Your task to perform on an android device: Open calendar and show me the first week of next month Image 0: 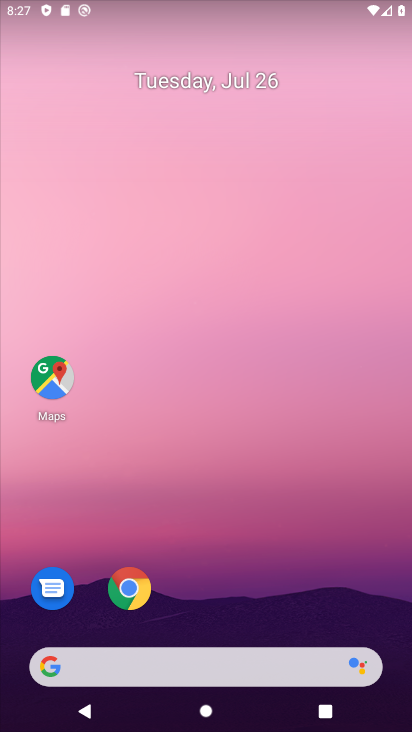
Step 0: drag from (285, 603) to (244, 147)
Your task to perform on an android device: Open calendar and show me the first week of next month Image 1: 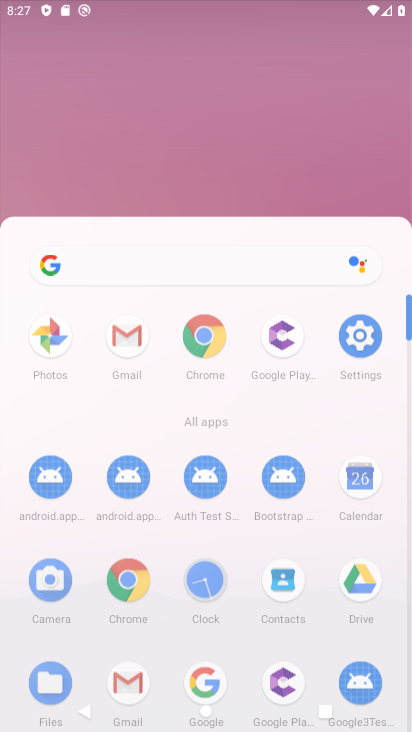
Step 1: drag from (192, 486) to (189, 128)
Your task to perform on an android device: Open calendar and show me the first week of next month Image 2: 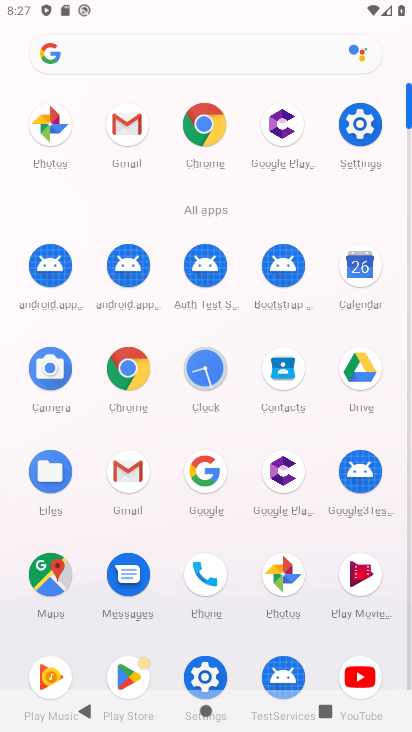
Step 2: click (361, 258)
Your task to perform on an android device: Open calendar and show me the first week of next month Image 3: 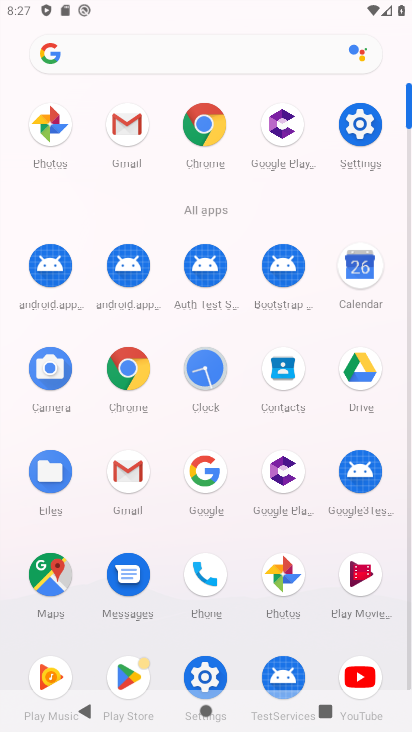
Step 3: click (360, 259)
Your task to perform on an android device: Open calendar and show me the first week of next month Image 4: 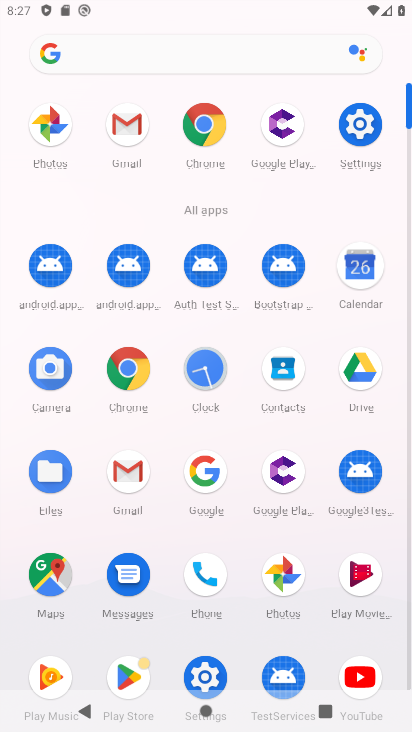
Step 4: click (359, 259)
Your task to perform on an android device: Open calendar and show me the first week of next month Image 5: 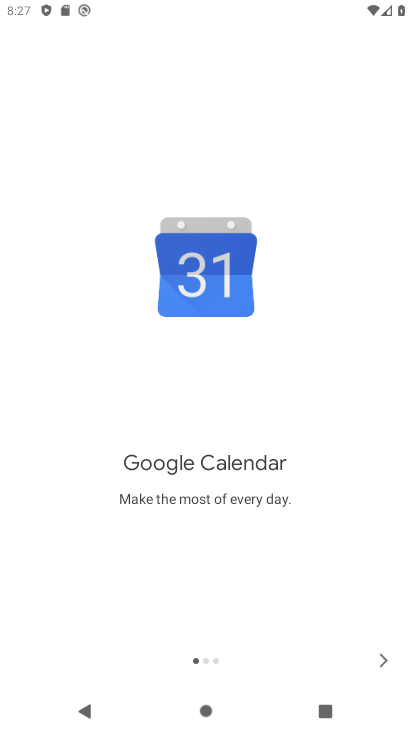
Step 5: click (380, 652)
Your task to perform on an android device: Open calendar and show me the first week of next month Image 6: 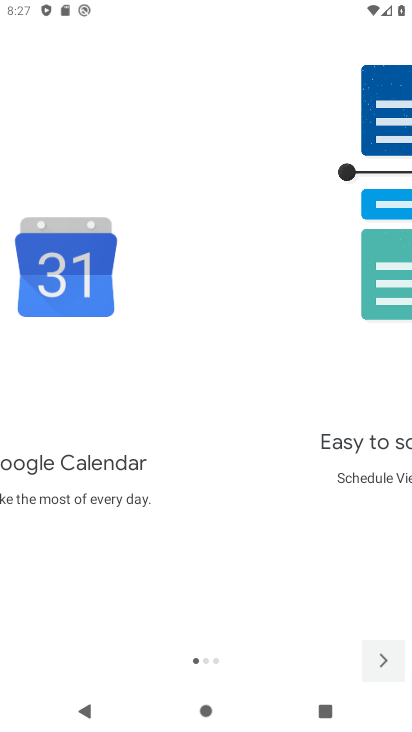
Step 6: click (384, 662)
Your task to perform on an android device: Open calendar and show me the first week of next month Image 7: 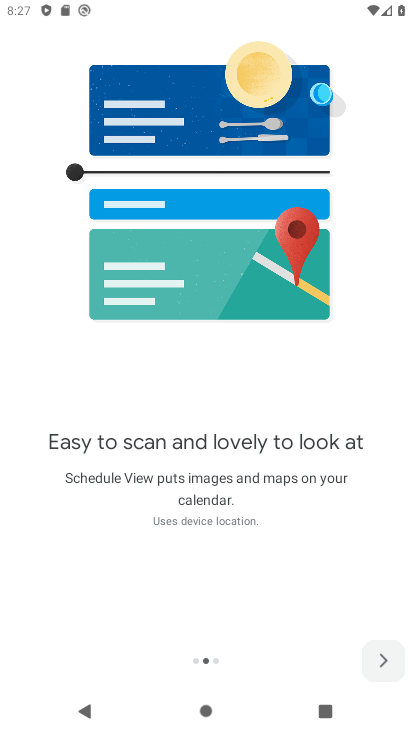
Step 7: click (384, 662)
Your task to perform on an android device: Open calendar and show me the first week of next month Image 8: 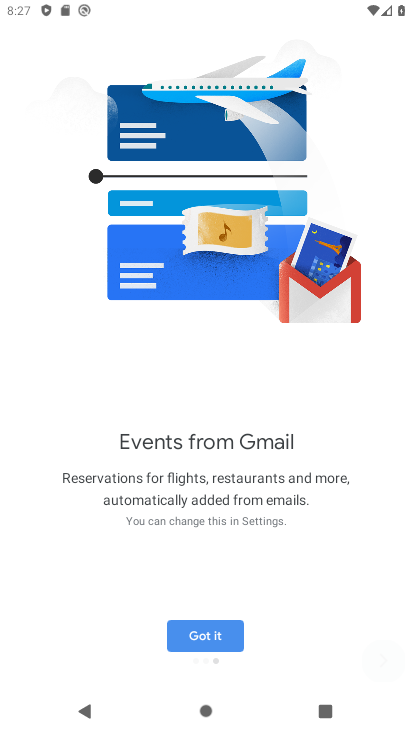
Step 8: click (384, 662)
Your task to perform on an android device: Open calendar and show me the first week of next month Image 9: 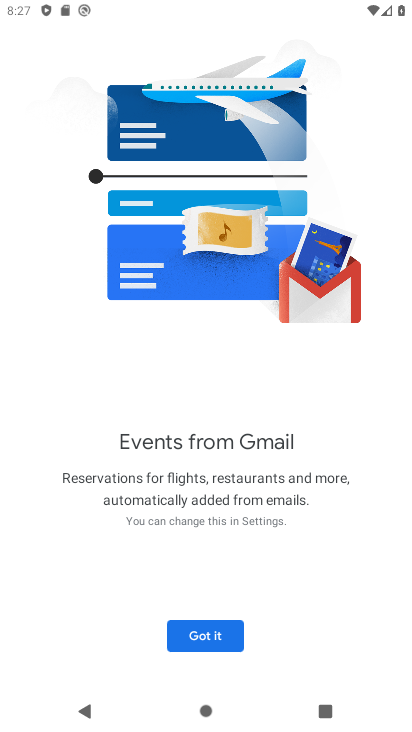
Step 9: click (237, 636)
Your task to perform on an android device: Open calendar and show me the first week of next month Image 10: 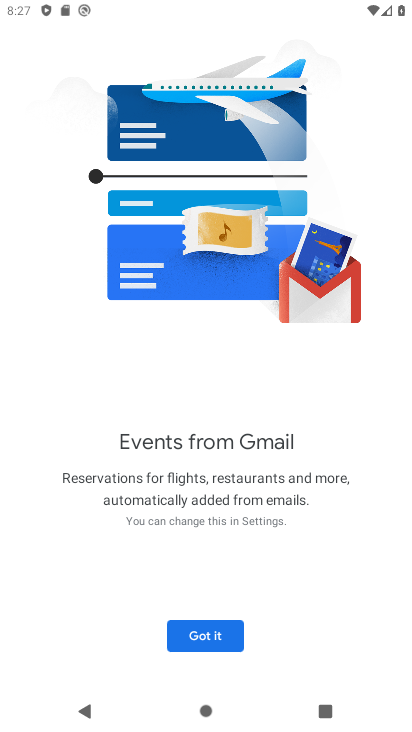
Step 10: click (237, 636)
Your task to perform on an android device: Open calendar and show me the first week of next month Image 11: 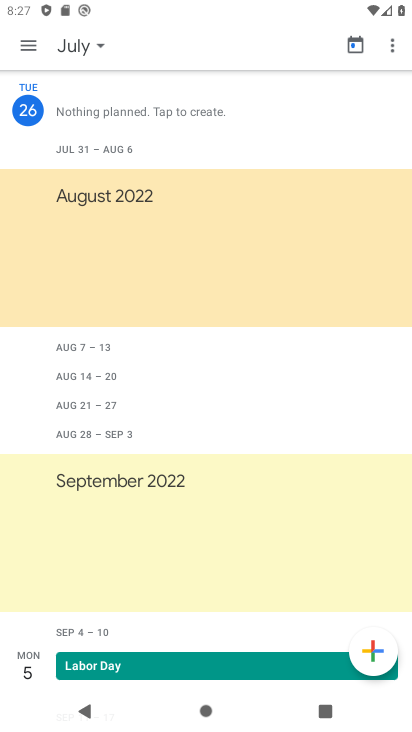
Step 11: click (103, 50)
Your task to perform on an android device: Open calendar and show me the first week of next month Image 12: 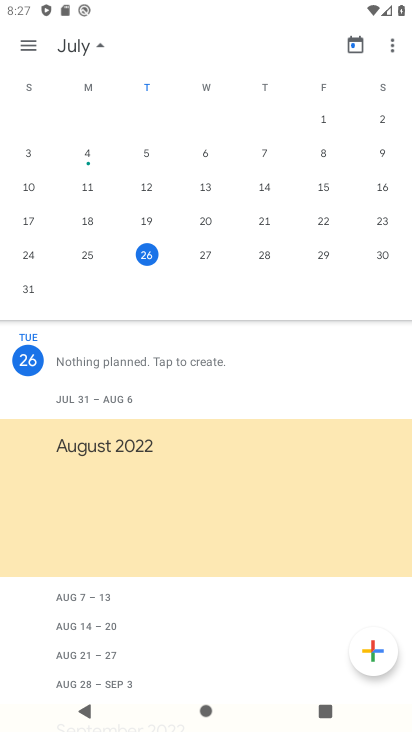
Step 12: task complete